Your task to perform on an android device: Do I have any events today? Image 0: 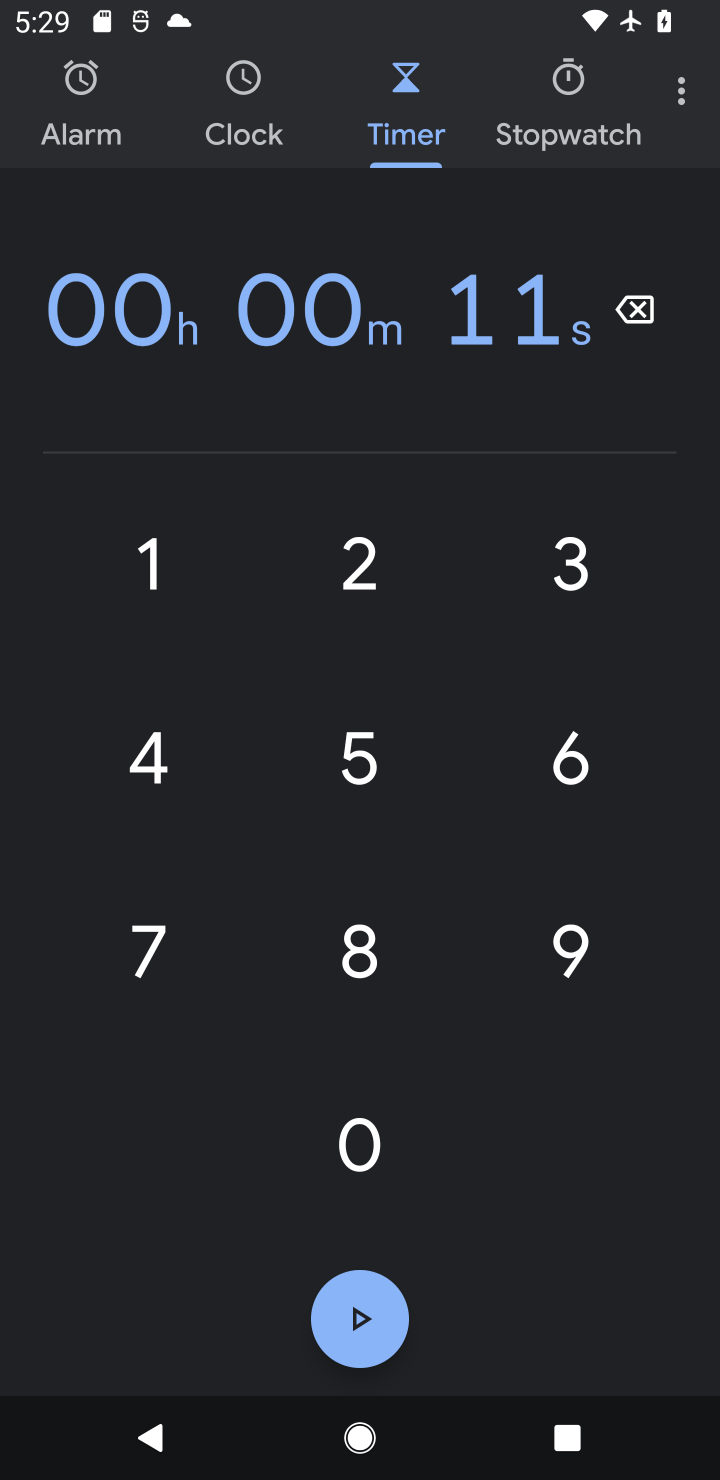
Step 0: press home button
Your task to perform on an android device: Do I have any events today? Image 1: 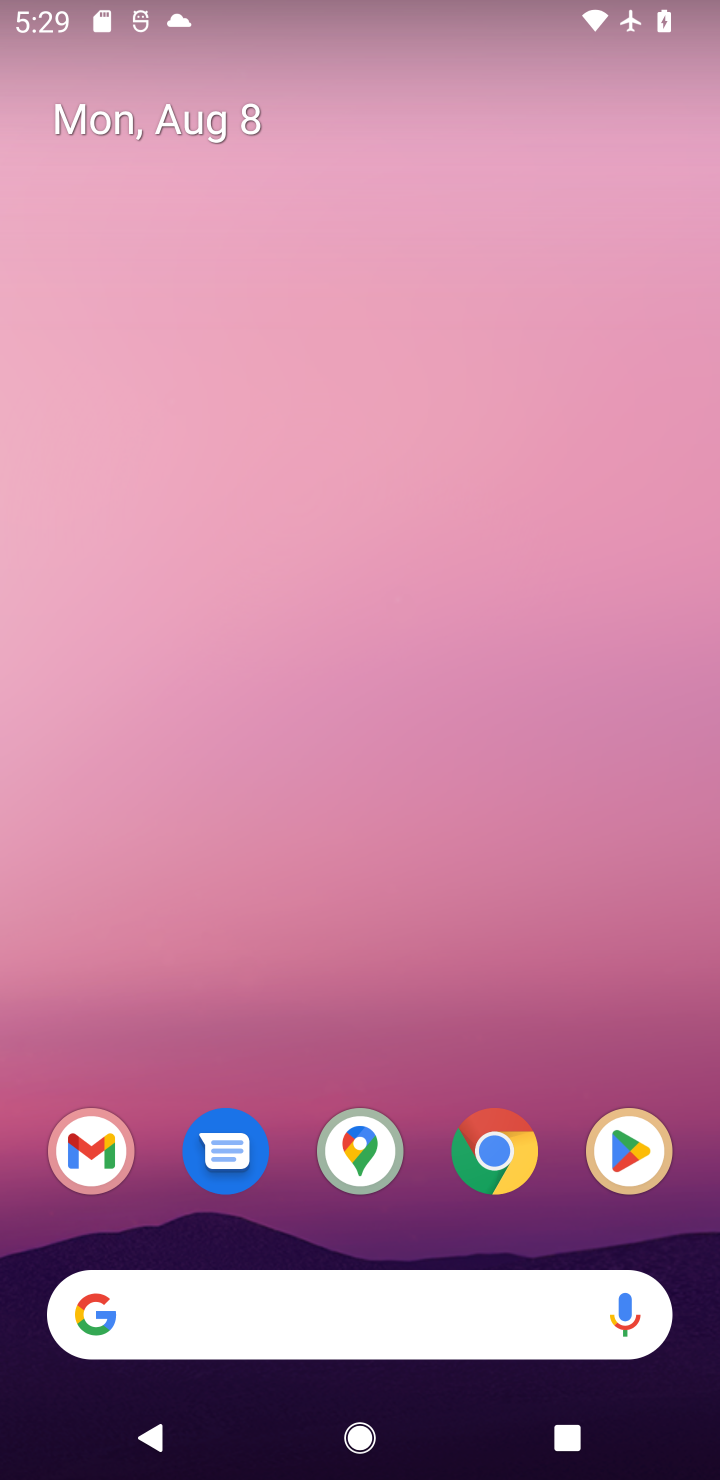
Step 1: drag from (338, 1044) to (330, 320)
Your task to perform on an android device: Do I have any events today? Image 2: 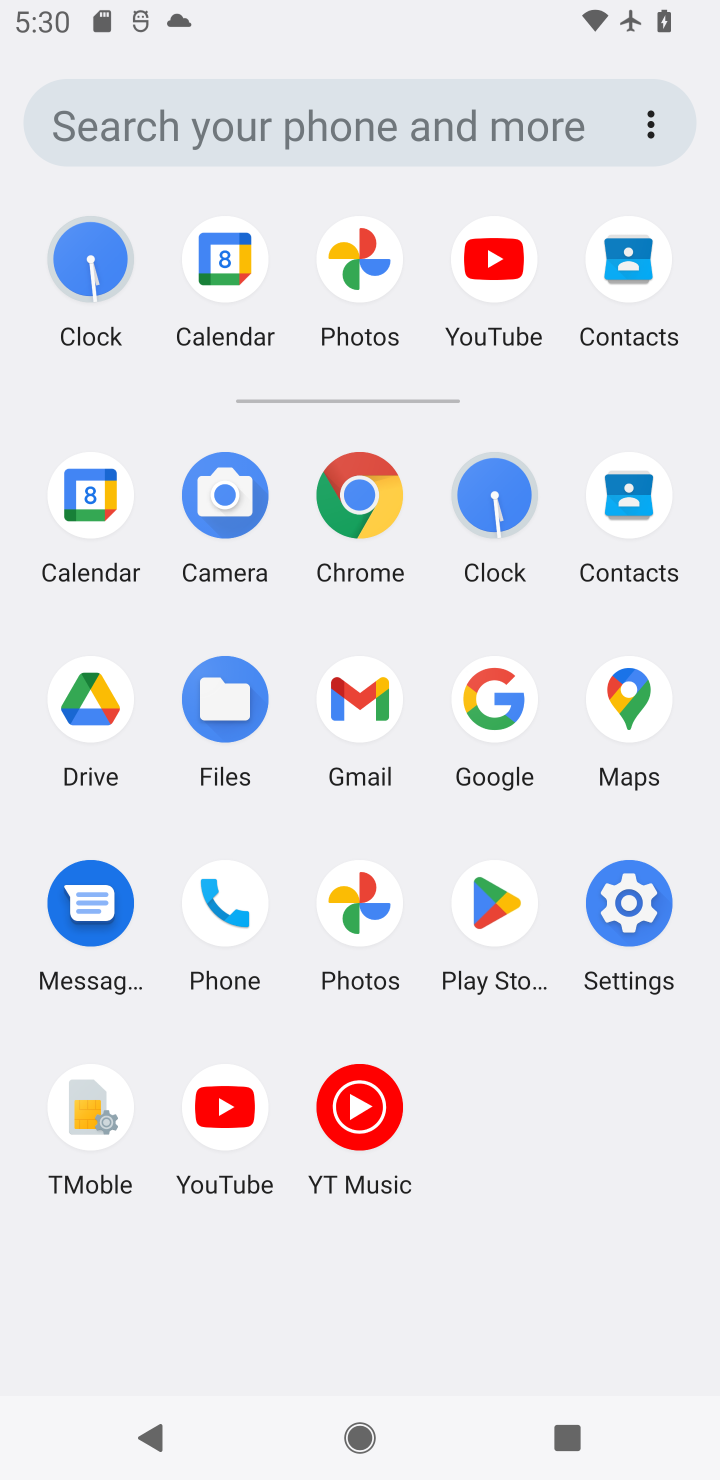
Step 2: click (115, 525)
Your task to perform on an android device: Do I have any events today? Image 3: 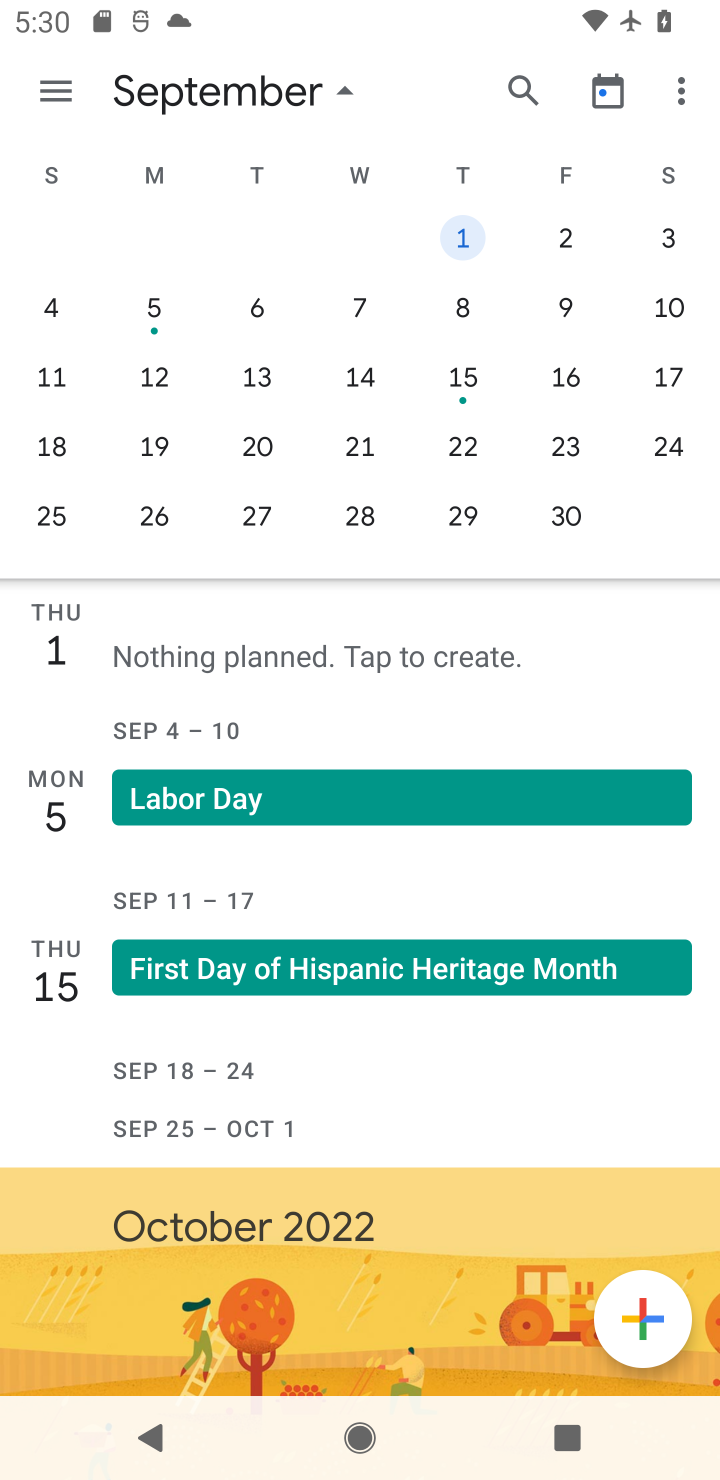
Step 3: drag from (111, 340) to (712, 298)
Your task to perform on an android device: Do I have any events today? Image 4: 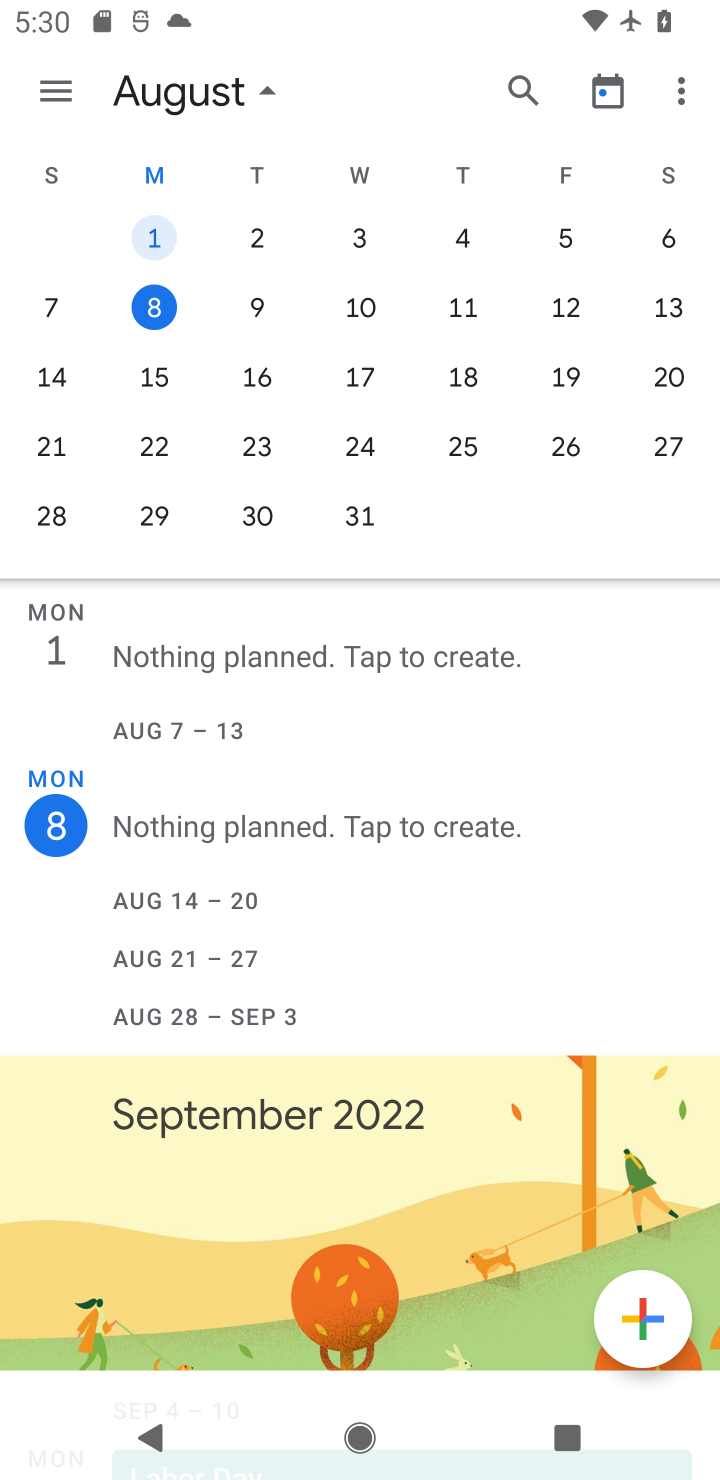
Step 4: click (156, 298)
Your task to perform on an android device: Do I have any events today? Image 5: 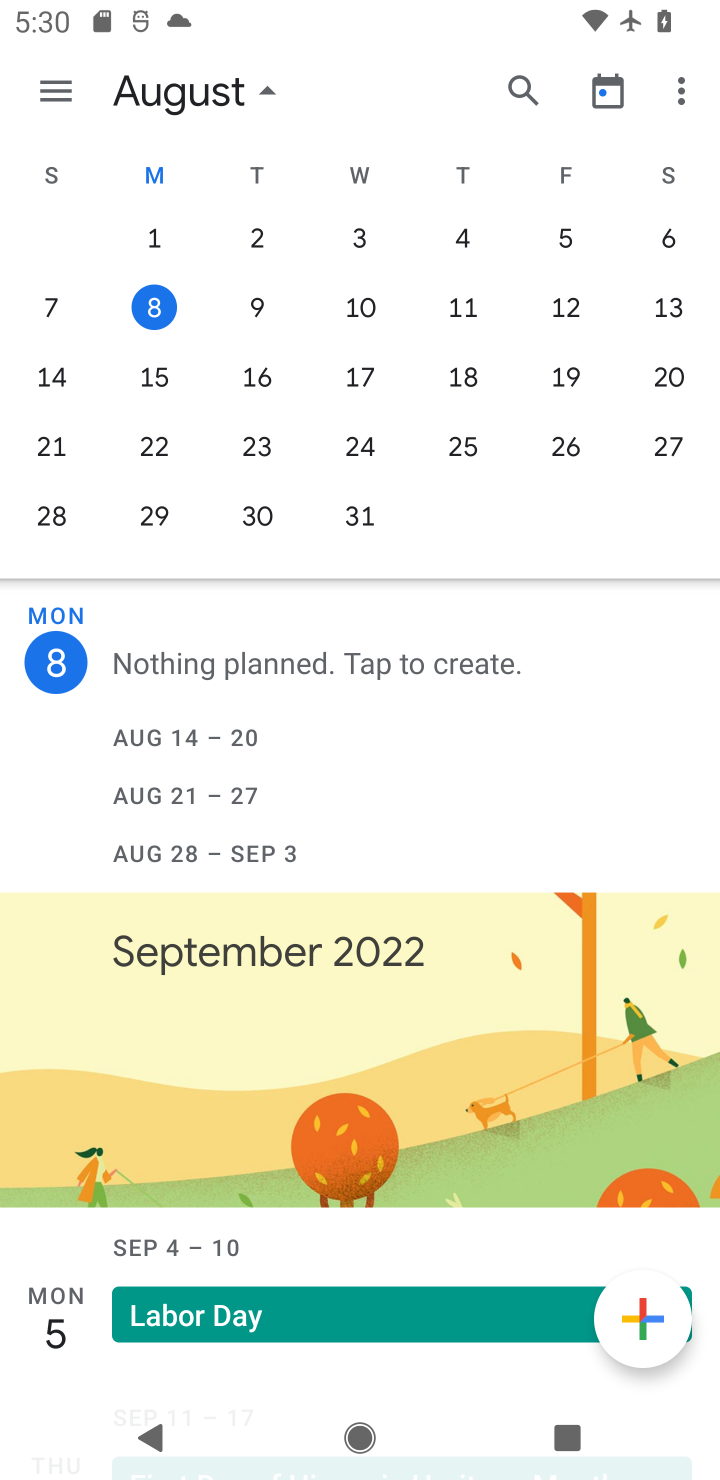
Step 5: task complete